Your task to perform on an android device: stop showing notifications on the lock screen Image 0: 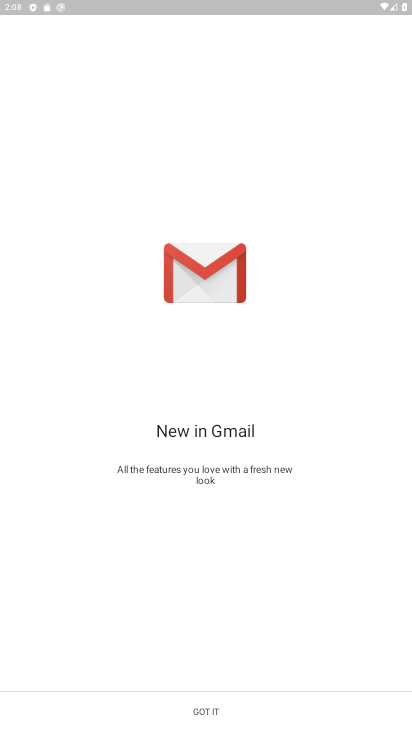
Step 0: press home button
Your task to perform on an android device: stop showing notifications on the lock screen Image 1: 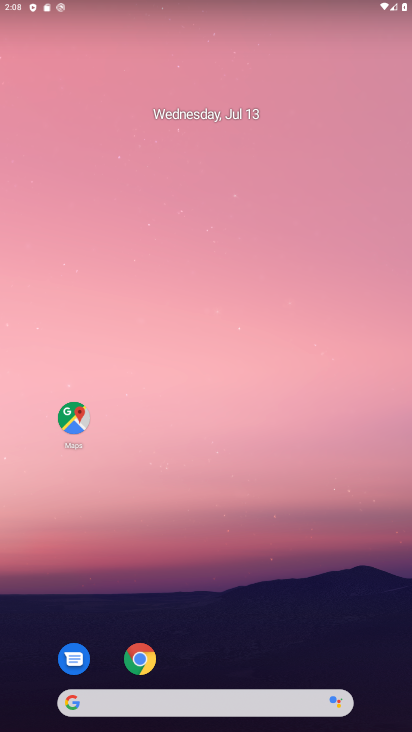
Step 1: drag from (302, 646) to (311, 62)
Your task to perform on an android device: stop showing notifications on the lock screen Image 2: 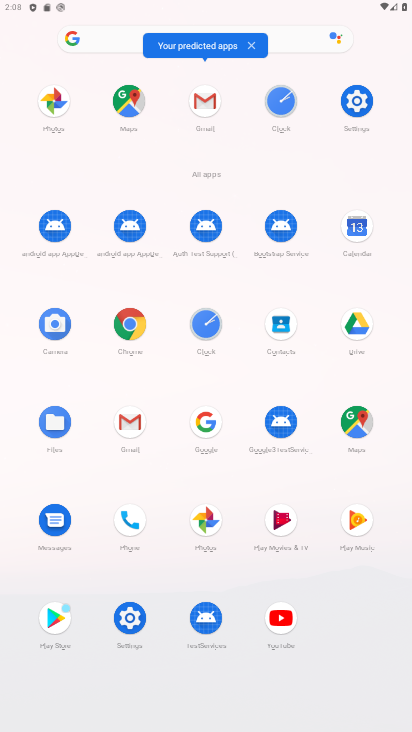
Step 2: click (356, 102)
Your task to perform on an android device: stop showing notifications on the lock screen Image 3: 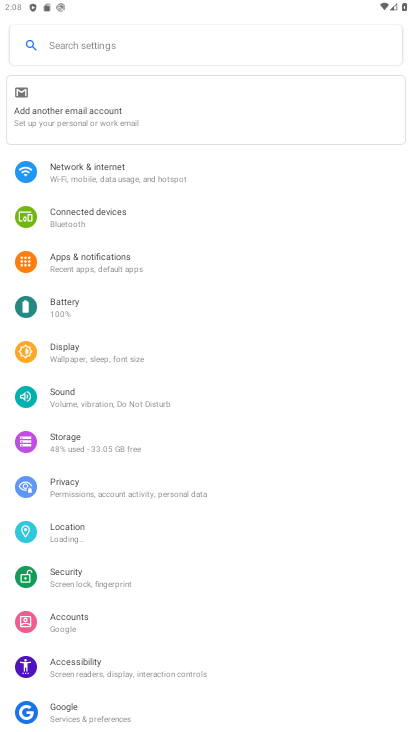
Step 3: click (96, 202)
Your task to perform on an android device: stop showing notifications on the lock screen Image 4: 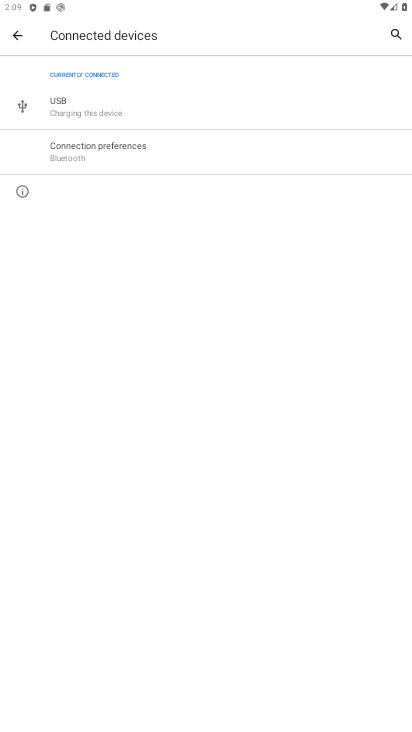
Step 4: click (17, 32)
Your task to perform on an android device: stop showing notifications on the lock screen Image 5: 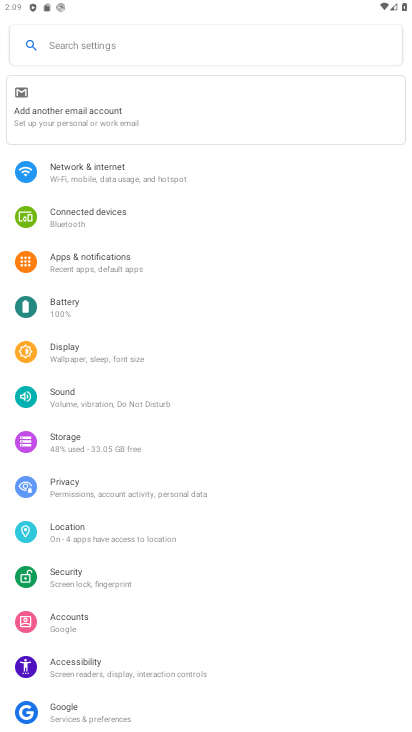
Step 5: click (121, 262)
Your task to perform on an android device: stop showing notifications on the lock screen Image 6: 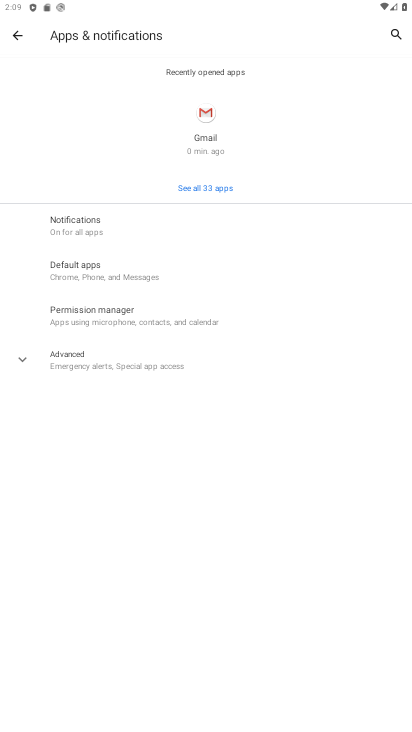
Step 6: click (121, 228)
Your task to perform on an android device: stop showing notifications on the lock screen Image 7: 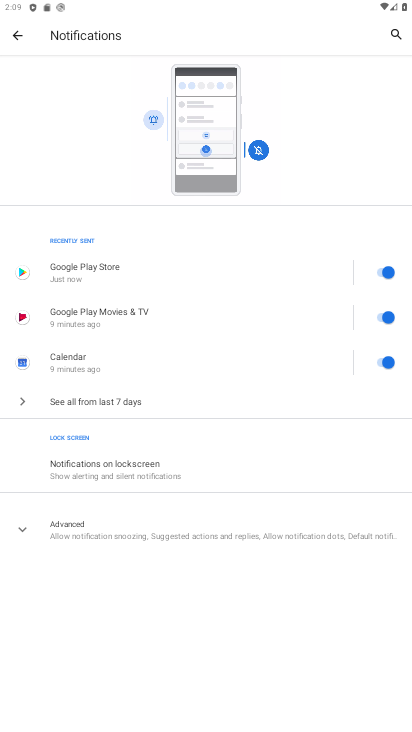
Step 7: click (99, 456)
Your task to perform on an android device: stop showing notifications on the lock screen Image 8: 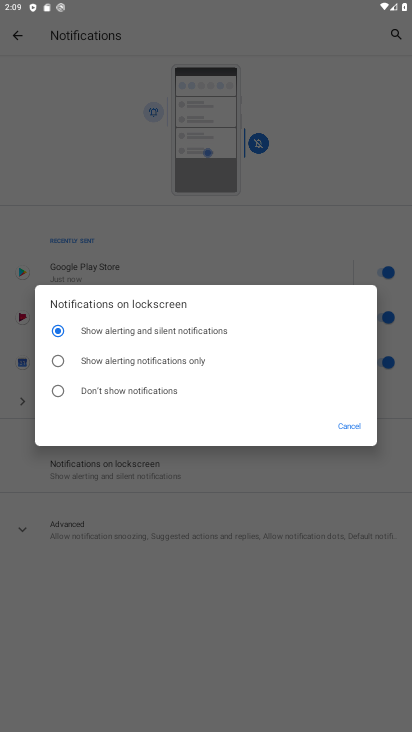
Step 8: click (106, 391)
Your task to perform on an android device: stop showing notifications on the lock screen Image 9: 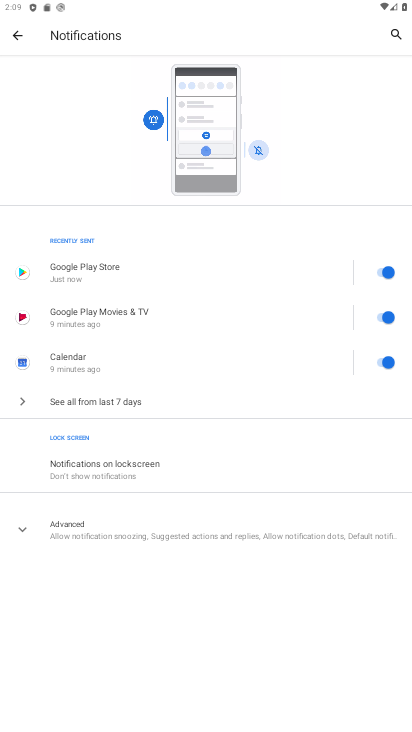
Step 9: task complete